Your task to perform on an android device: snooze an email in the gmail app Image 0: 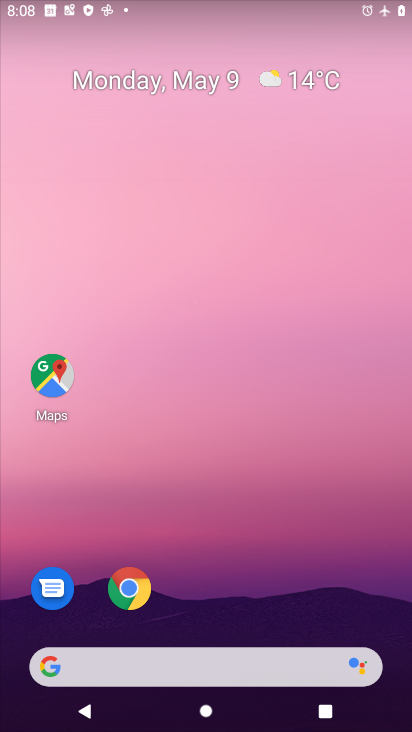
Step 0: drag from (305, 598) to (285, 62)
Your task to perform on an android device: snooze an email in the gmail app Image 1: 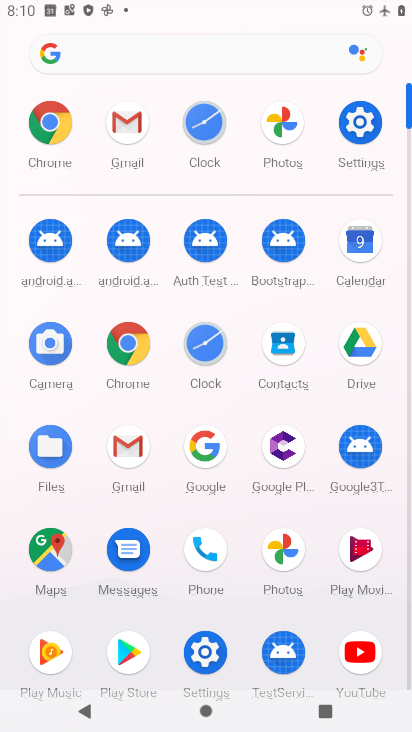
Step 1: click (107, 439)
Your task to perform on an android device: snooze an email in the gmail app Image 2: 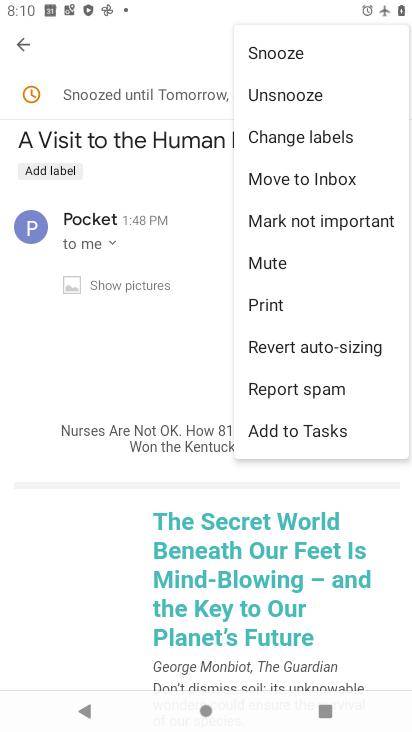
Step 2: press back button
Your task to perform on an android device: snooze an email in the gmail app Image 3: 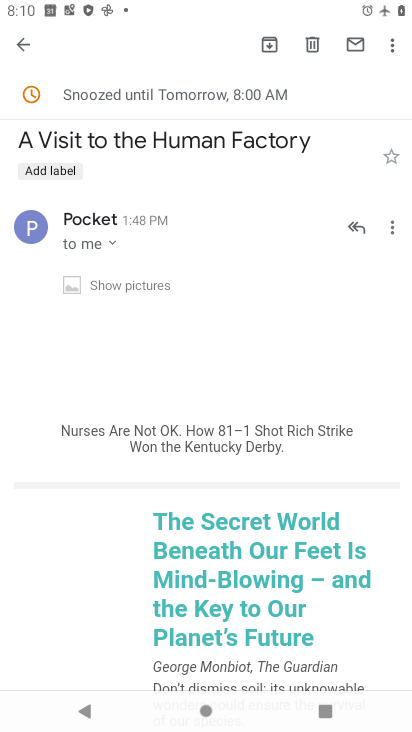
Step 3: click (398, 41)
Your task to perform on an android device: snooze an email in the gmail app Image 4: 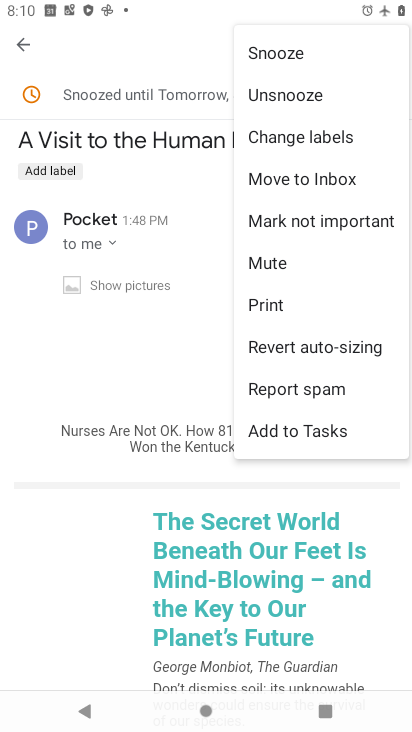
Step 4: click (313, 60)
Your task to perform on an android device: snooze an email in the gmail app Image 5: 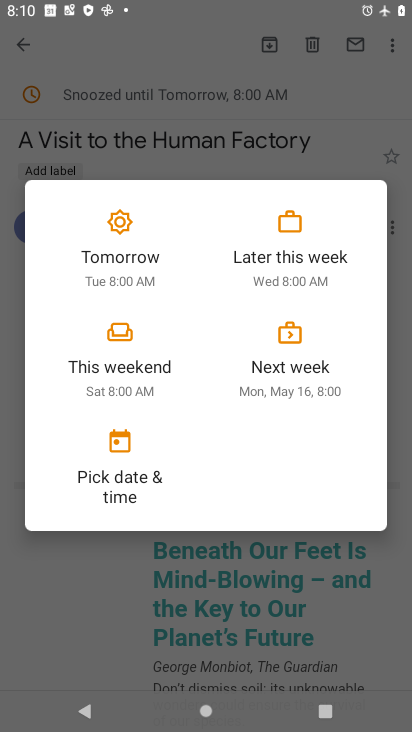
Step 5: click (262, 268)
Your task to perform on an android device: snooze an email in the gmail app Image 6: 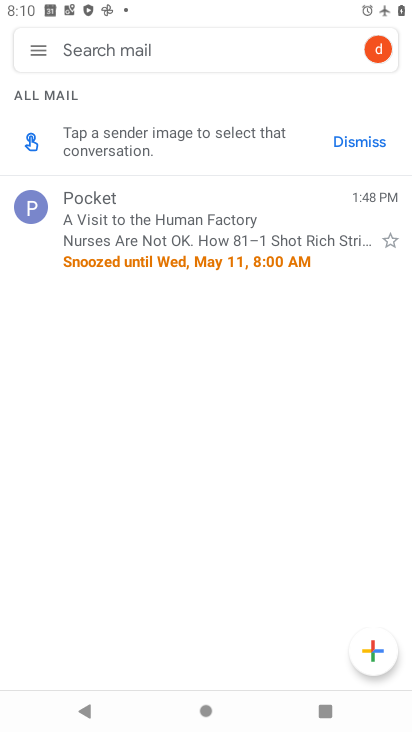
Step 6: task complete